Your task to perform on an android device: turn on improve location accuracy Image 0: 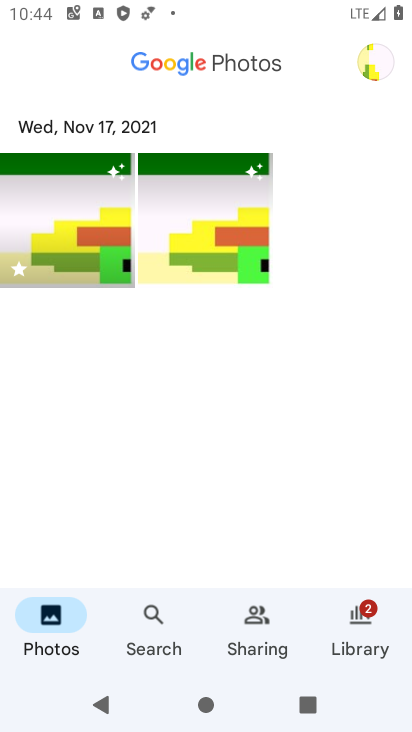
Step 0: press home button
Your task to perform on an android device: turn on improve location accuracy Image 1: 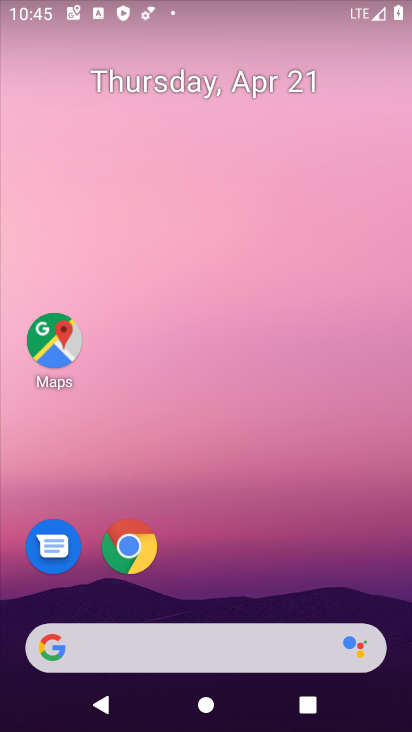
Step 1: drag from (400, 615) to (291, 75)
Your task to perform on an android device: turn on improve location accuracy Image 2: 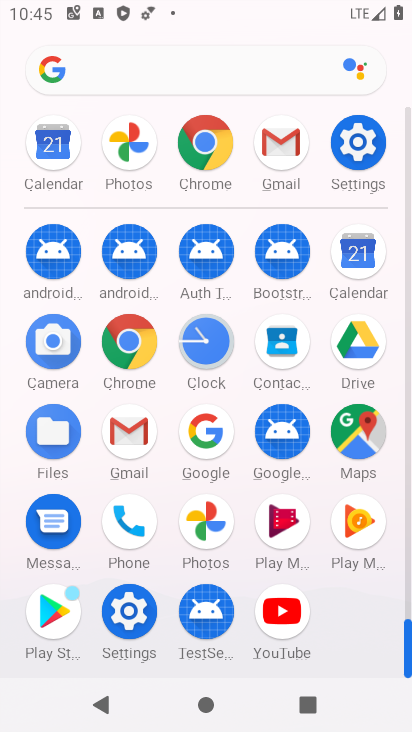
Step 2: click (128, 612)
Your task to perform on an android device: turn on improve location accuracy Image 3: 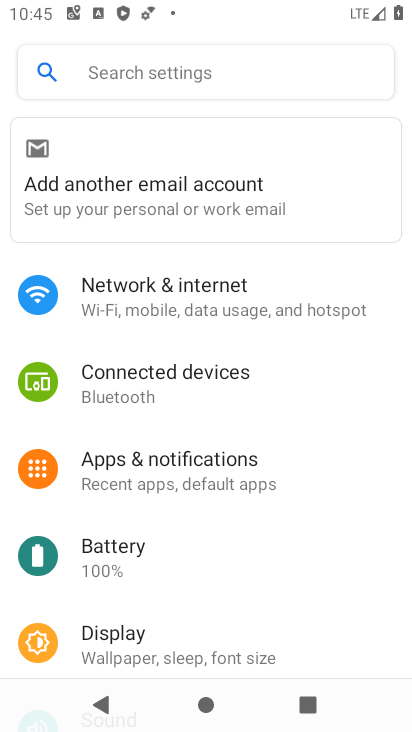
Step 3: drag from (328, 653) to (325, 371)
Your task to perform on an android device: turn on improve location accuracy Image 4: 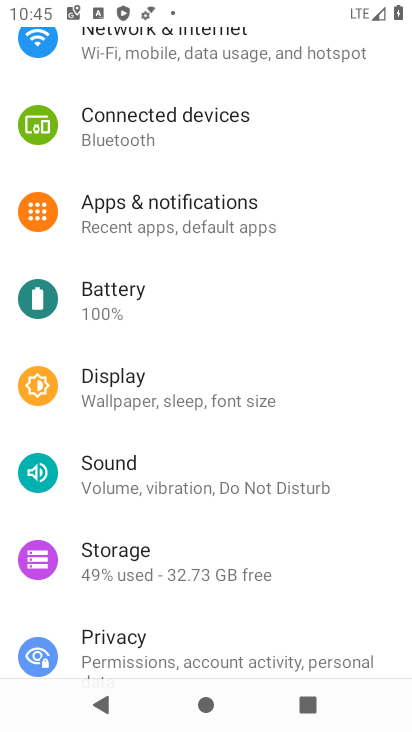
Step 4: drag from (341, 592) to (322, 216)
Your task to perform on an android device: turn on improve location accuracy Image 5: 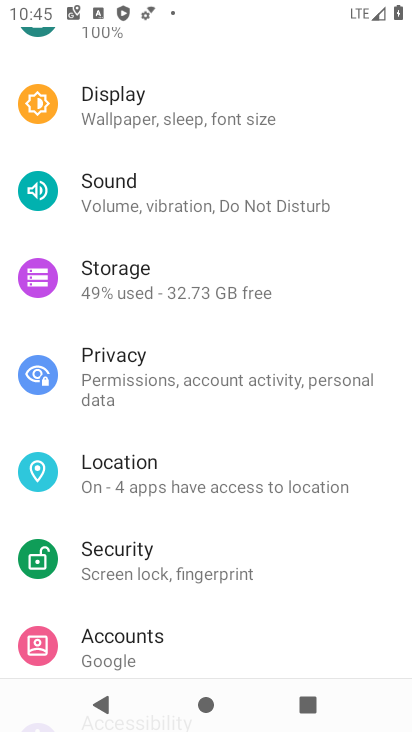
Step 5: click (131, 470)
Your task to perform on an android device: turn on improve location accuracy Image 6: 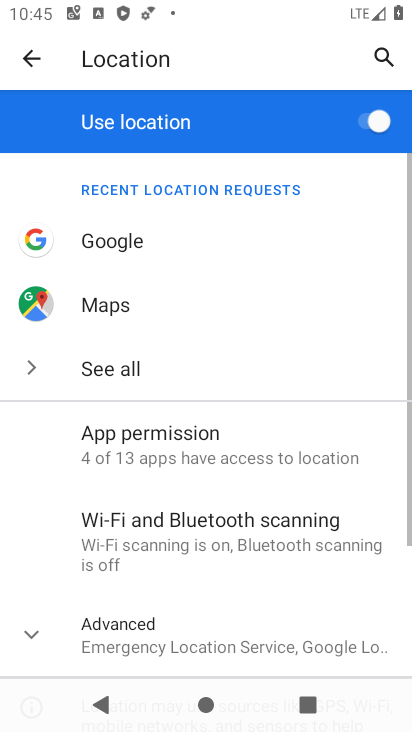
Step 6: click (27, 638)
Your task to perform on an android device: turn on improve location accuracy Image 7: 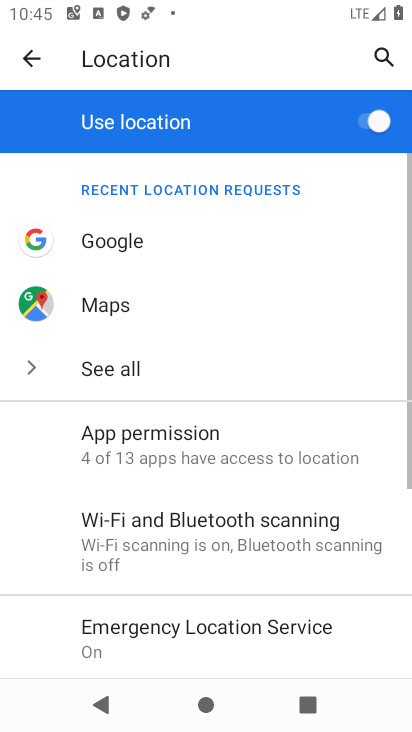
Step 7: drag from (310, 600) to (297, 182)
Your task to perform on an android device: turn on improve location accuracy Image 8: 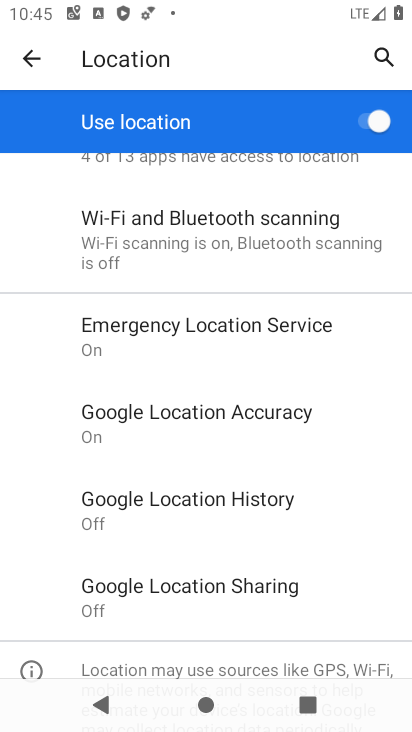
Step 8: click (126, 413)
Your task to perform on an android device: turn on improve location accuracy Image 9: 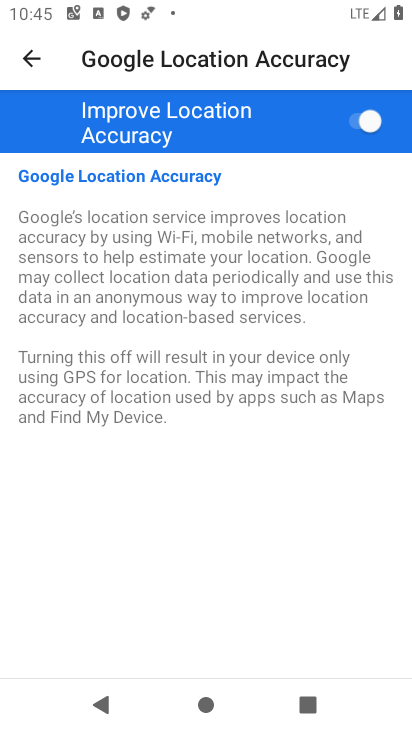
Step 9: task complete